Your task to perform on an android device: turn smart compose on in the gmail app Image 0: 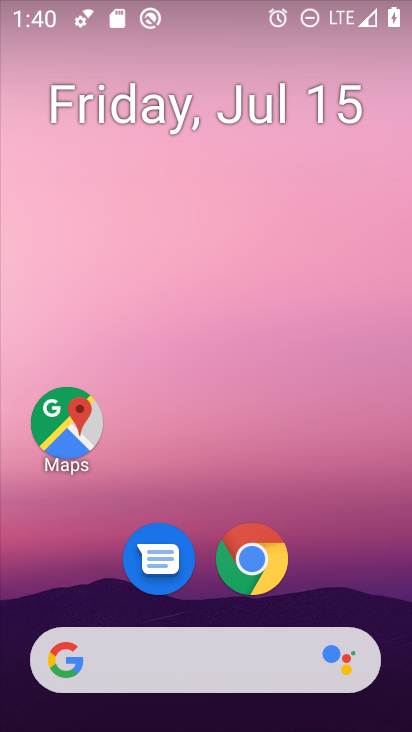
Step 0: drag from (364, 593) to (399, 75)
Your task to perform on an android device: turn smart compose on in the gmail app Image 1: 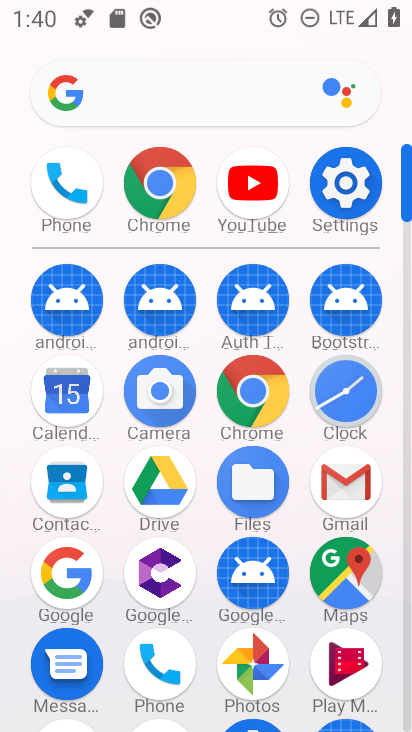
Step 1: click (354, 487)
Your task to perform on an android device: turn smart compose on in the gmail app Image 2: 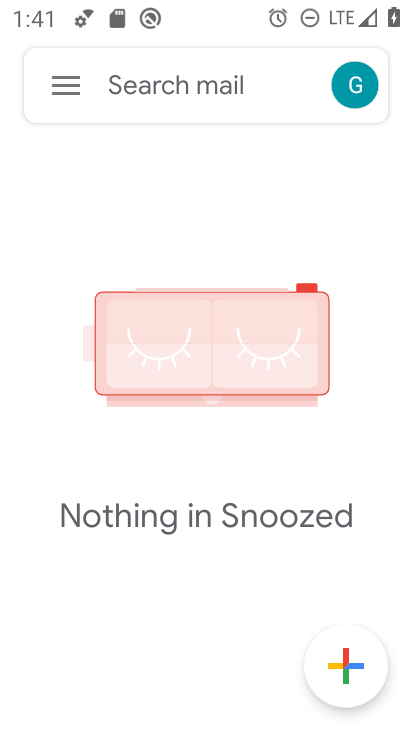
Step 2: click (69, 84)
Your task to perform on an android device: turn smart compose on in the gmail app Image 3: 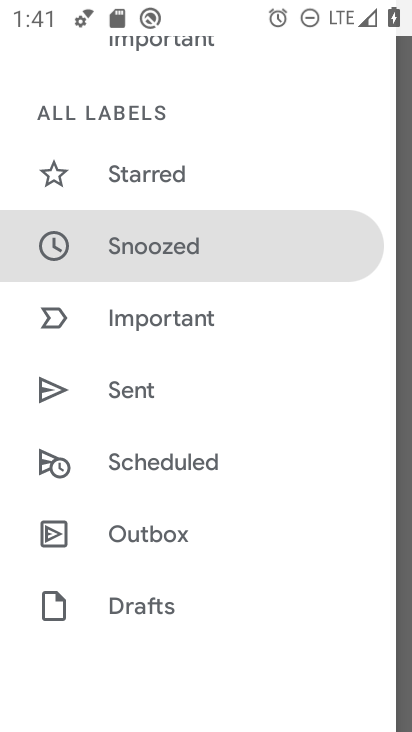
Step 3: drag from (307, 524) to (319, 441)
Your task to perform on an android device: turn smart compose on in the gmail app Image 4: 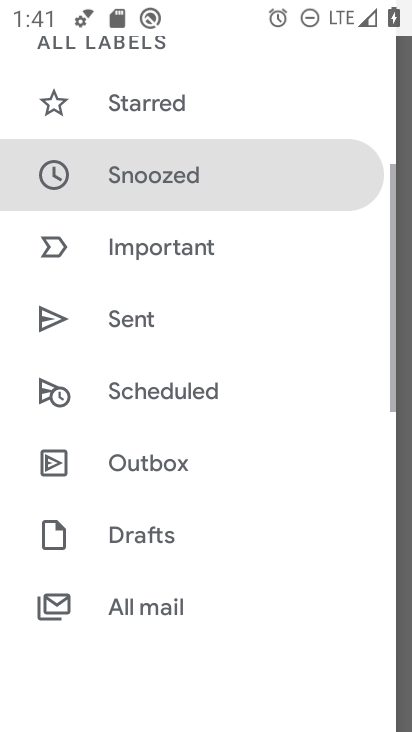
Step 4: drag from (323, 550) to (339, 380)
Your task to perform on an android device: turn smart compose on in the gmail app Image 5: 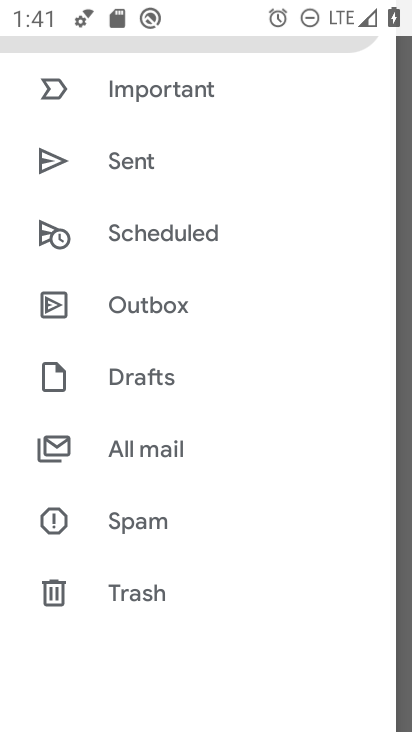
Step 5: drag from (327, 489) to (313, 396)
Your task to perform on an android device: turn smart compose on in the gmail app Image 6: 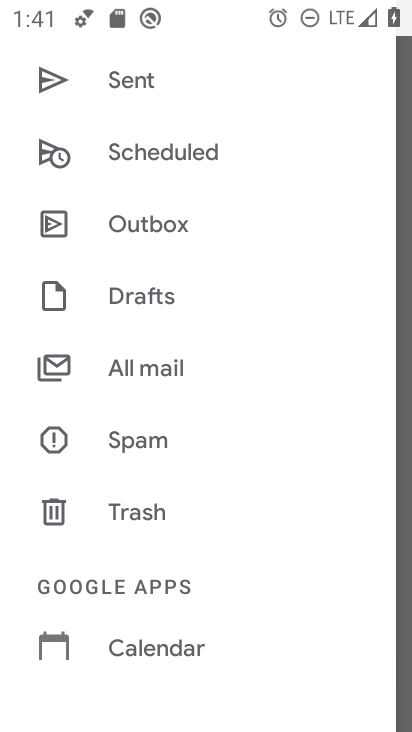
Step 6: drag from (280, 483) to (280, 344)
Your task to perform on an android device: turn smart compose on in the gmail app Image 7: 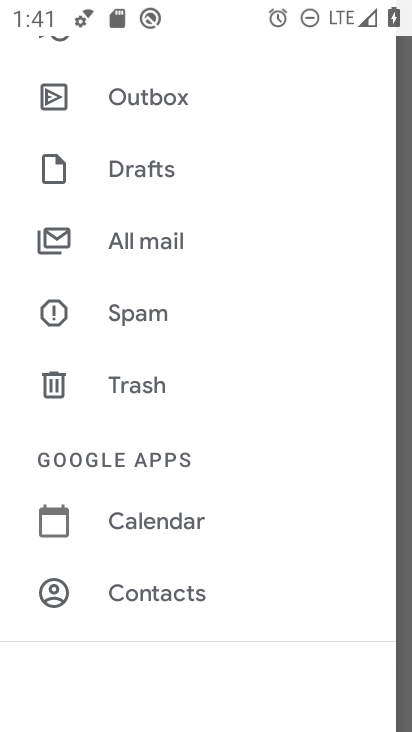
Step 7: drag from (295, 469) to (300, 355)
Your task to perform on an android device: turn smart compose on in the gmail app Image 8: 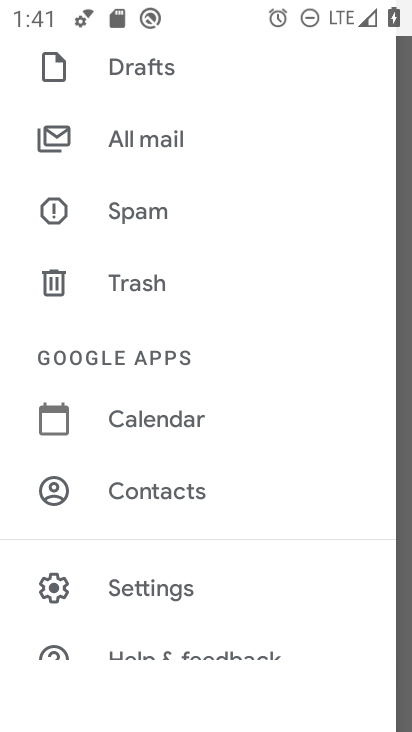
Step 8: drag from (267, 533) to (274, 378)
Your task to perform on an android device: turn smart compose on in the gmail app Image 9: 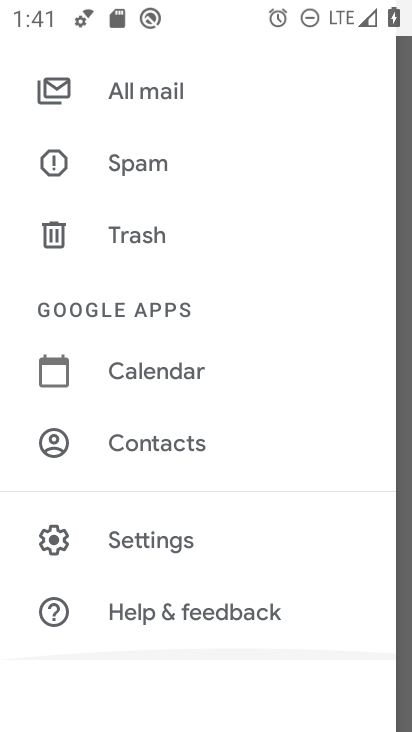
Step 9: click (196, 543)
Your task to perform on an android device: turn smart compose on in the gmail app Image 10: 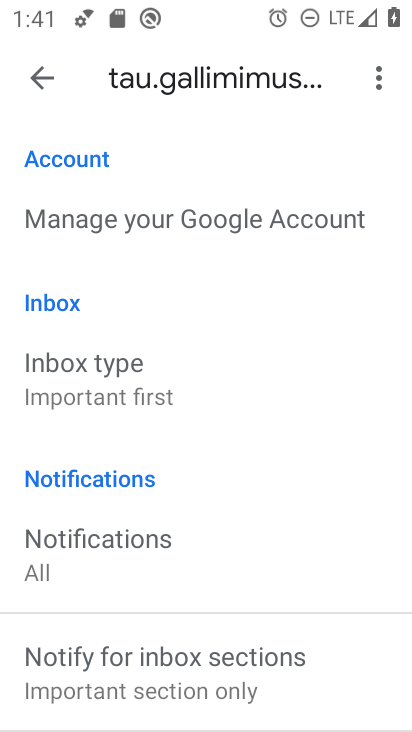
Step 10: task complete